Your task to perform on an android device: change the clock style Image 0: 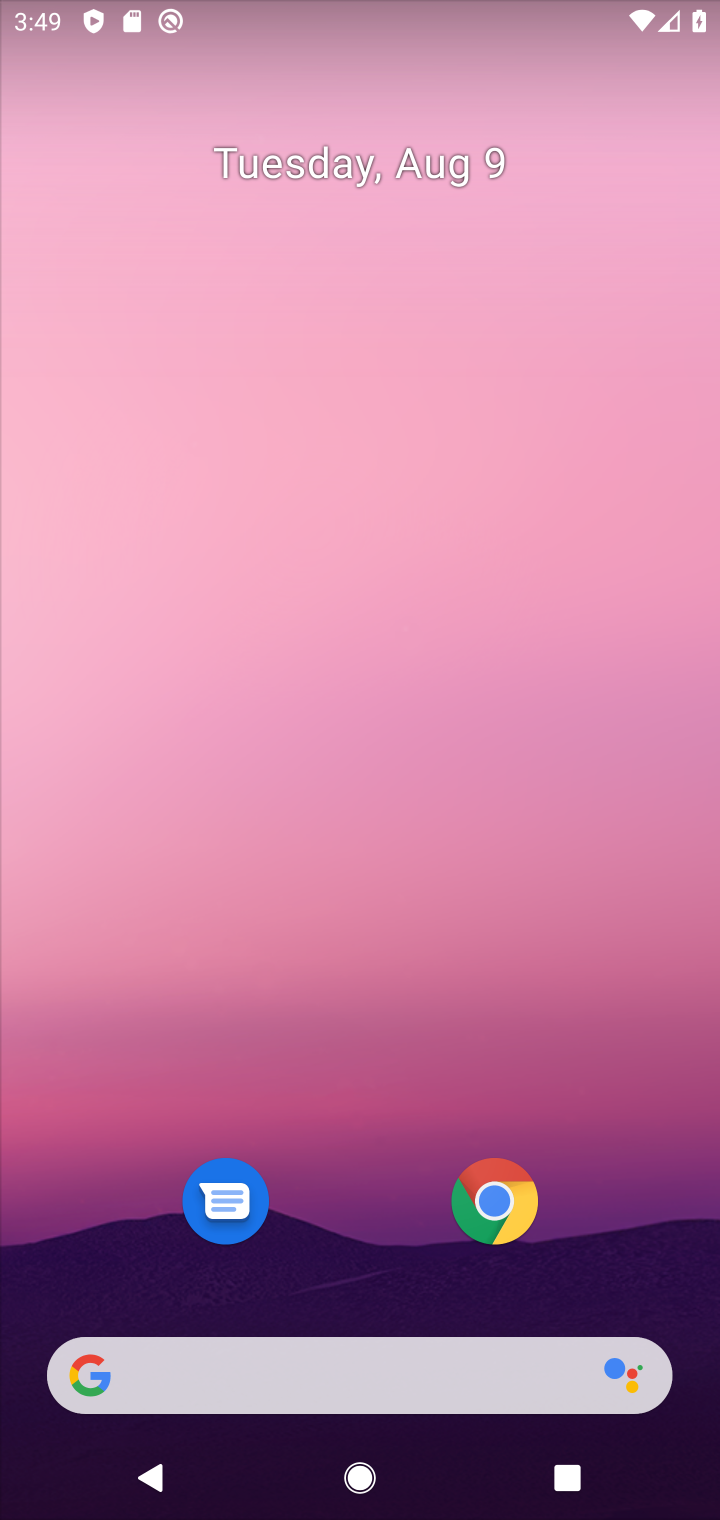
Step 0: drag from (371, 1242) to (413, 344)
Your task to perform on an android device: change the clock style Image 1: 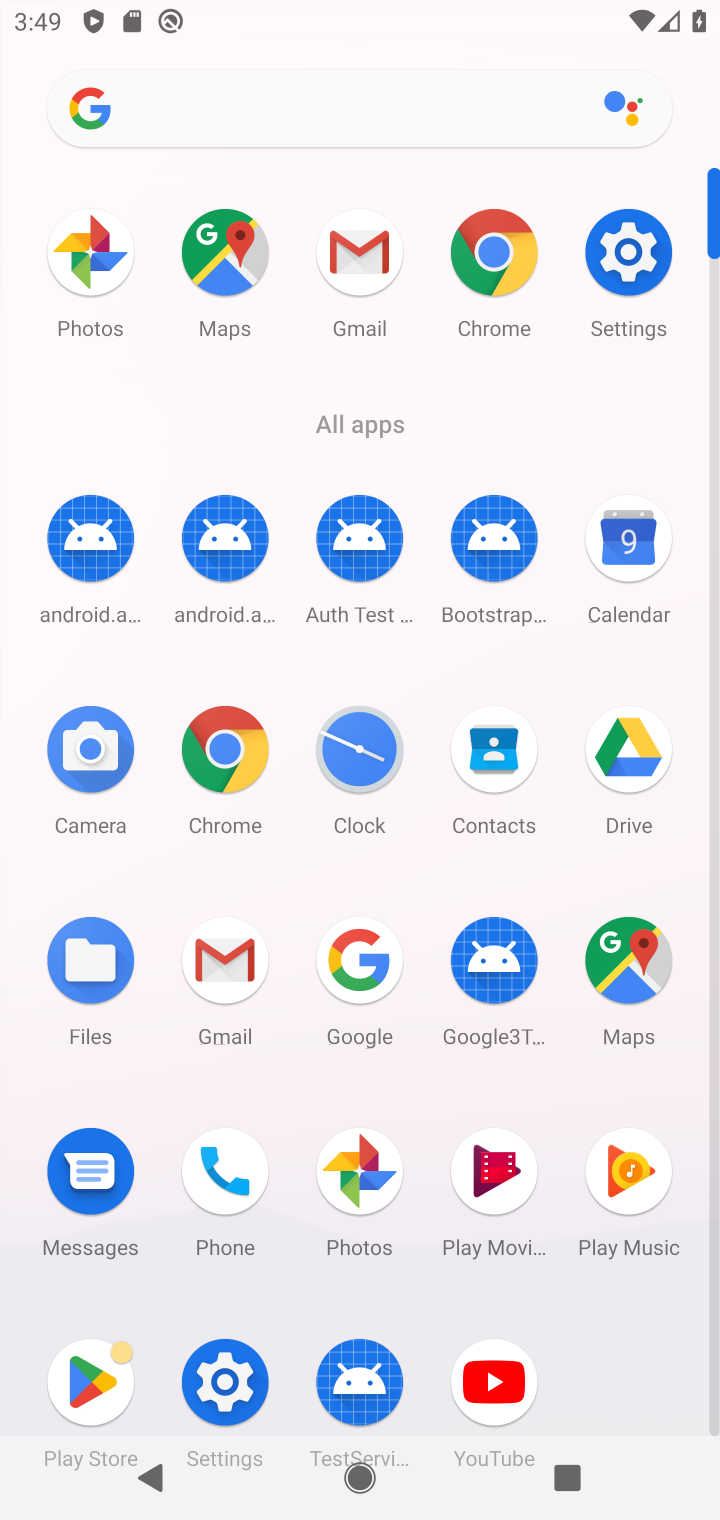
Step 1: click (363, 749)
Your task to perform on an android device: change the clock style Image 2: 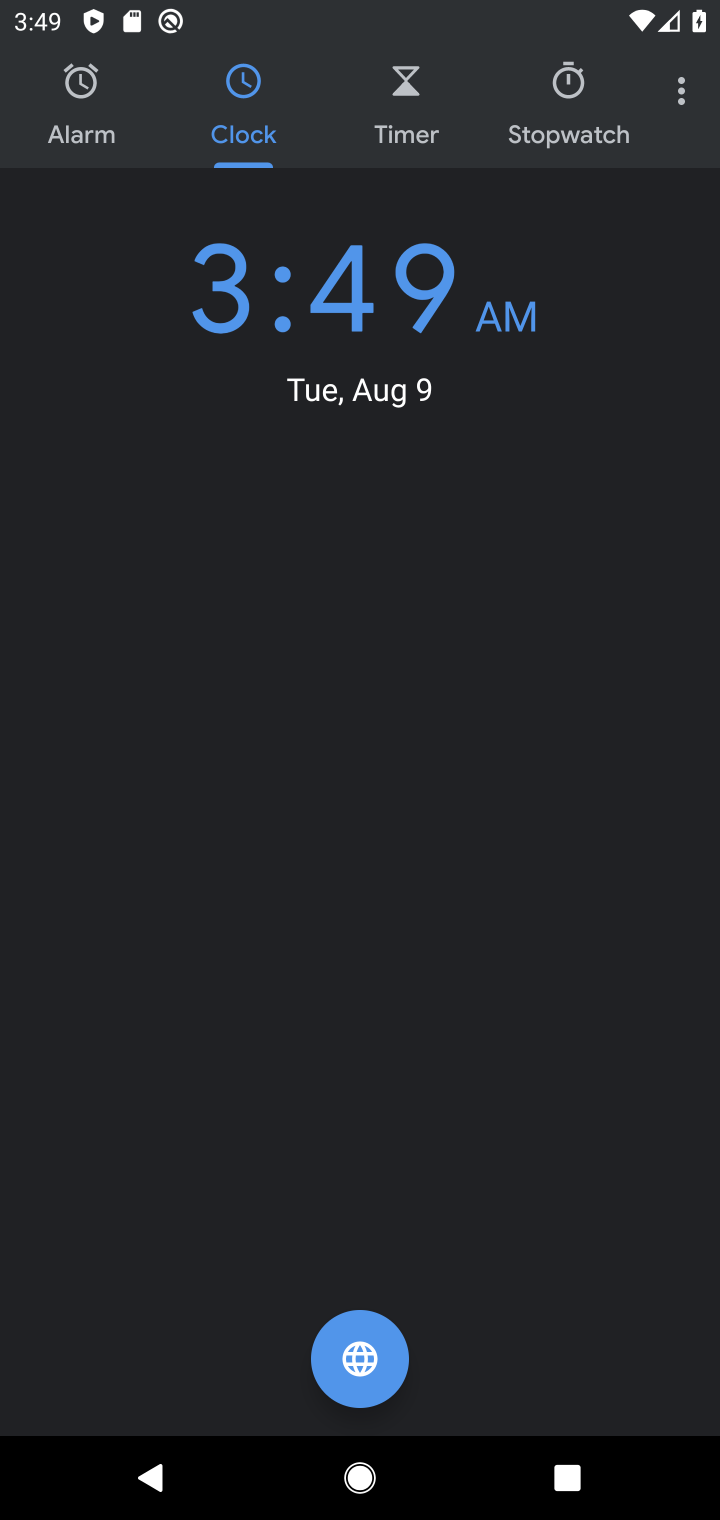
Step 2: click (687, 97)
Your task to perform on an android device: change the clock style Image 3: 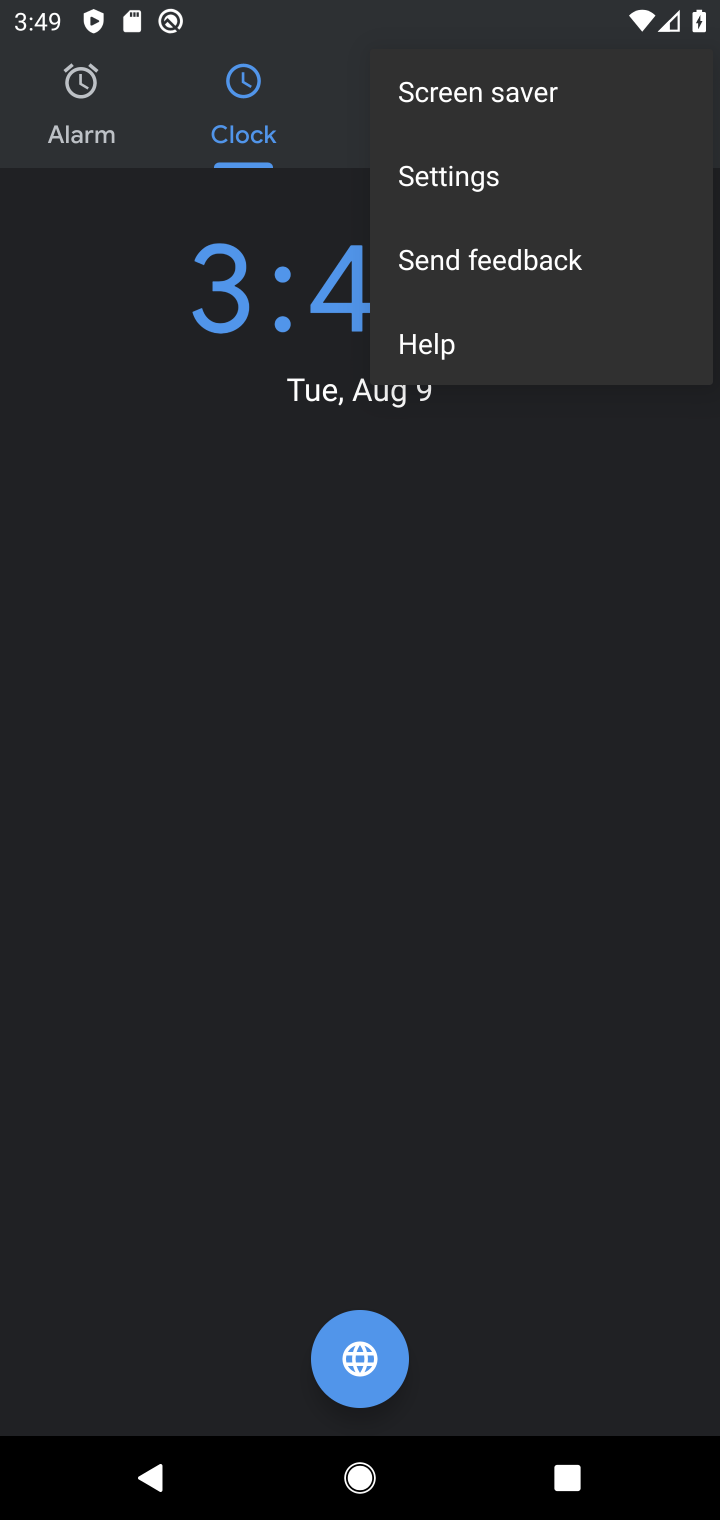
Step 3: click (479, 187)
Your task to perform on an android device: change the clock style Image 4: 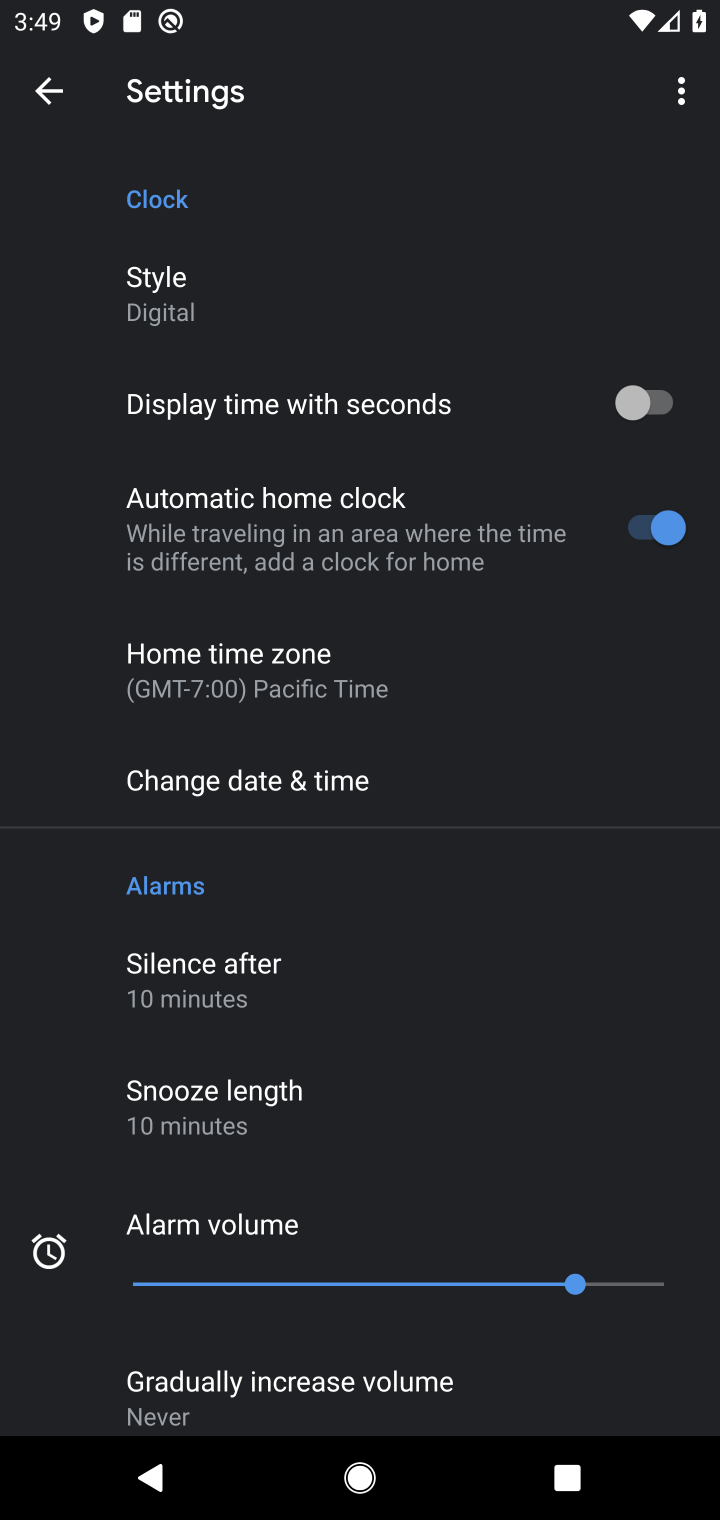
Step 4: click (269, 299)
Your task to perform on an android device: change the clock style Image 5: 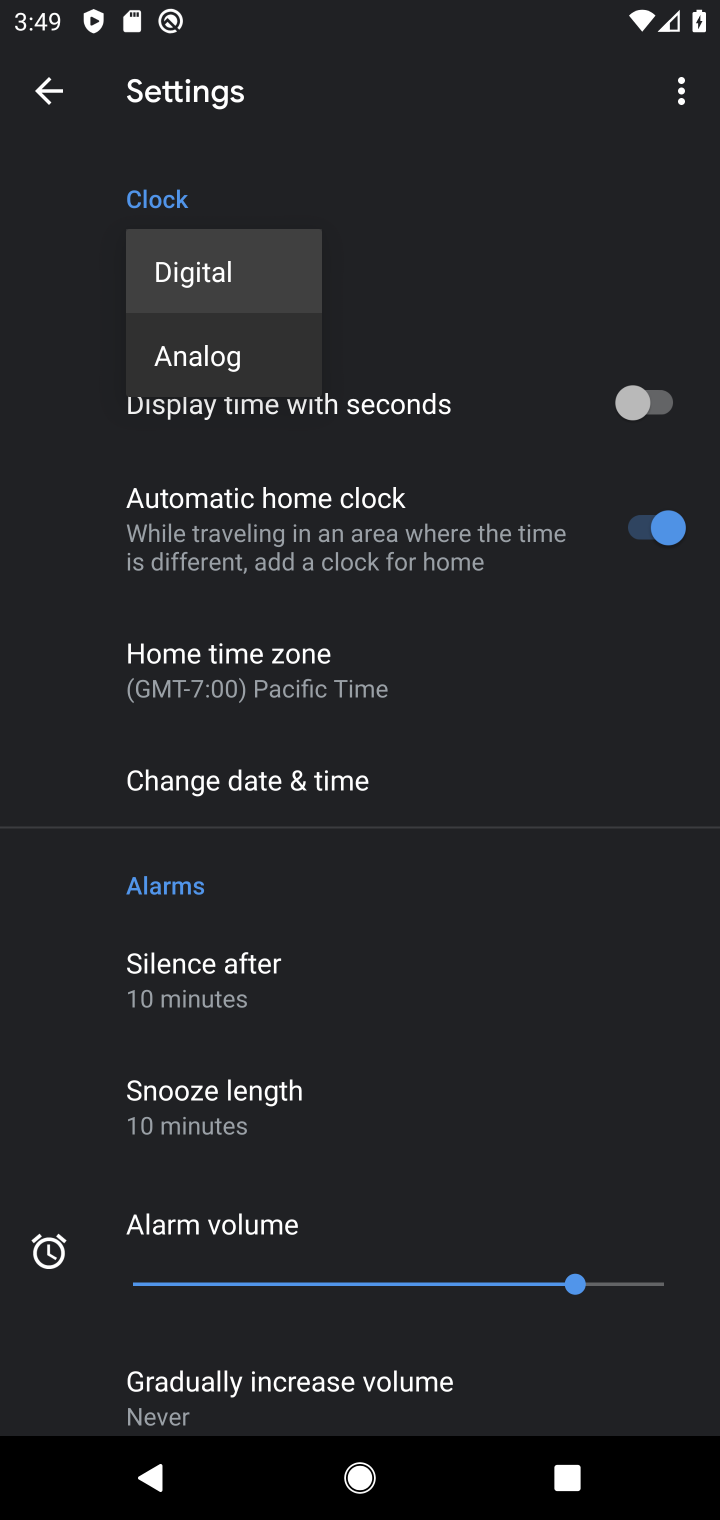
Step 5: click (204, 360)
Your task to perform on an android device: change the clock style Image 6: 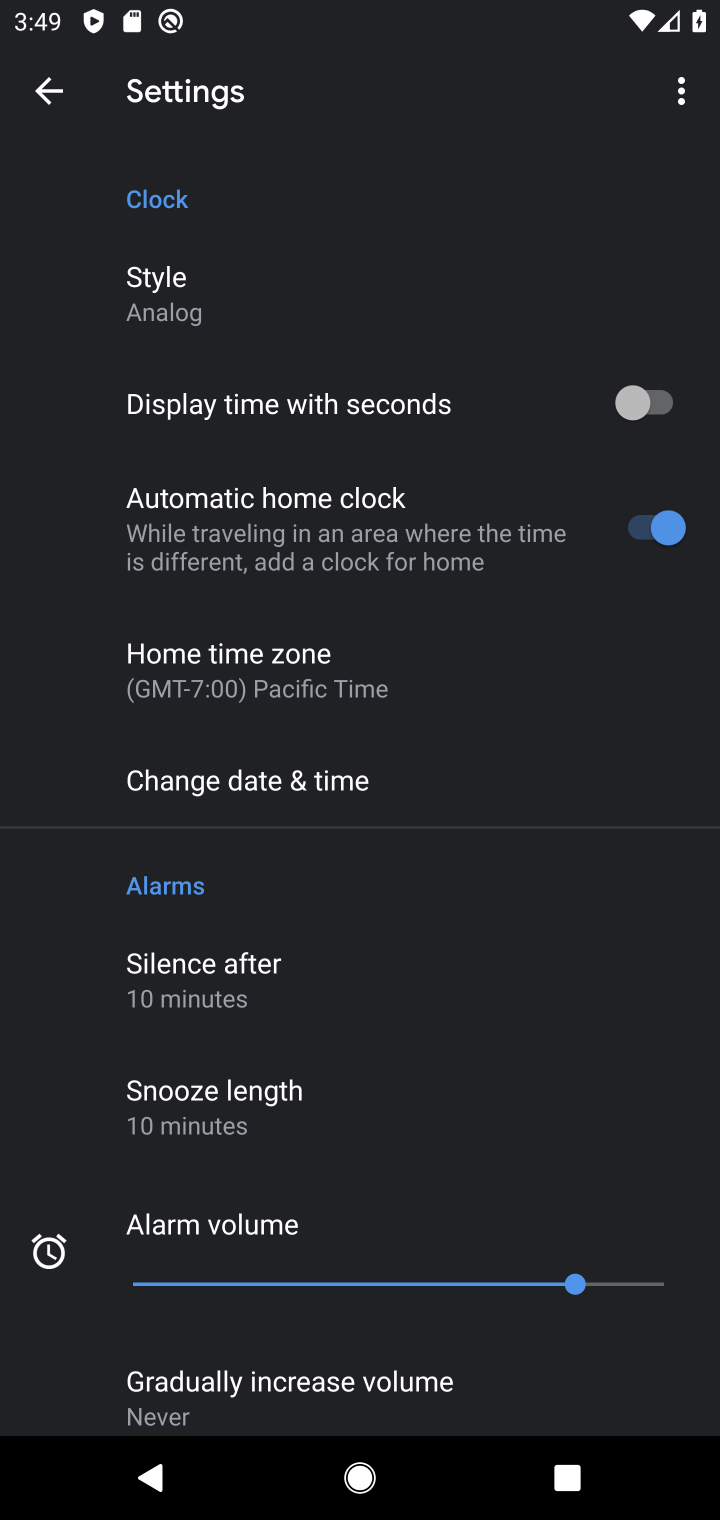
Step 6: task complete